Your task to perform on an android device: Search for flights from San Diego to Seattle Image 0: 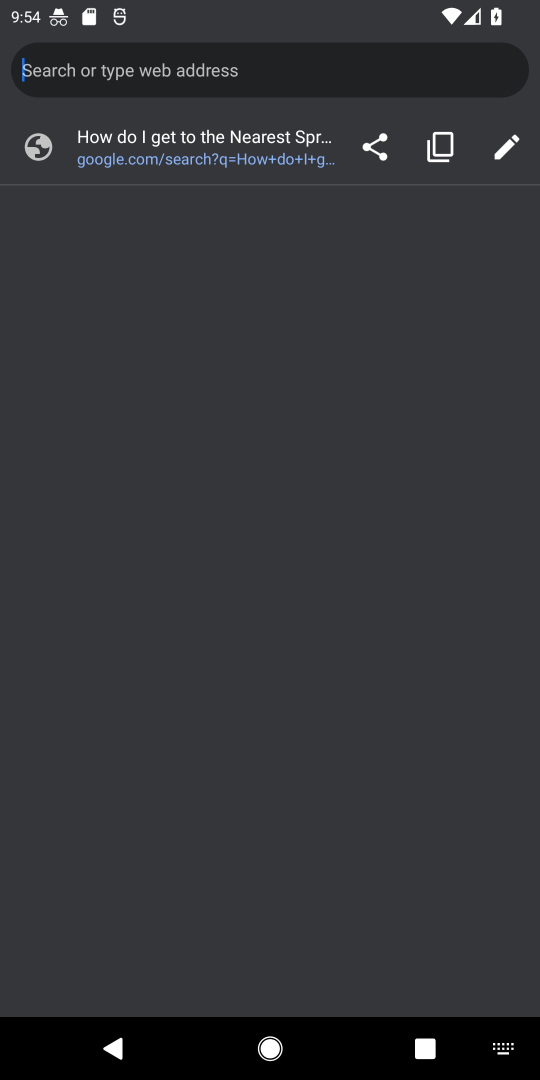
Step 0: click (211, 70)
Your task to perform on an android device: Search for flights from San Diego to Seattle Image 1: 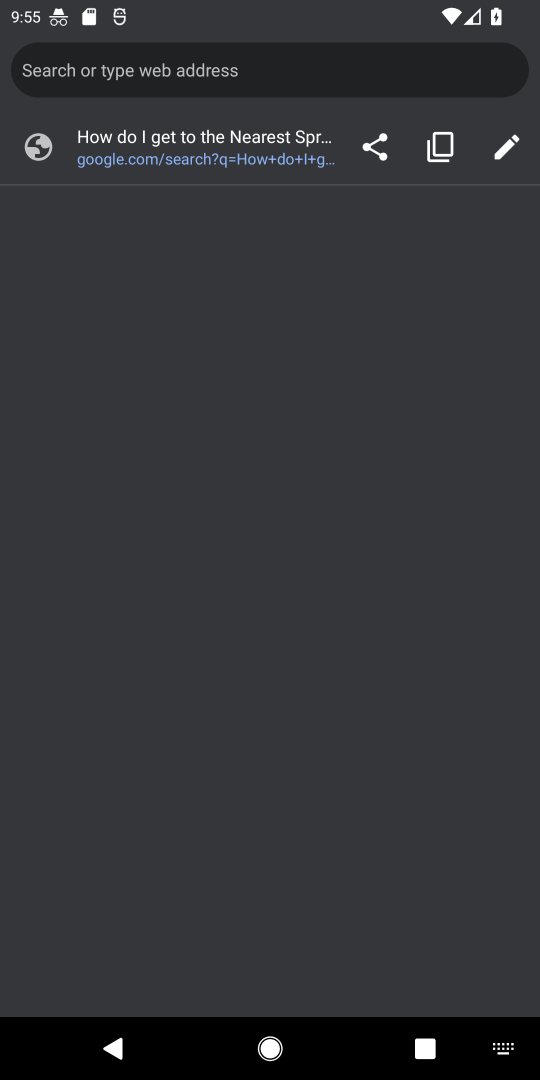
Step 1: type "flights from San Diego to Seattle"
Your task to perform on an android device: Search for flights from San Diego to Seattle Image 2: 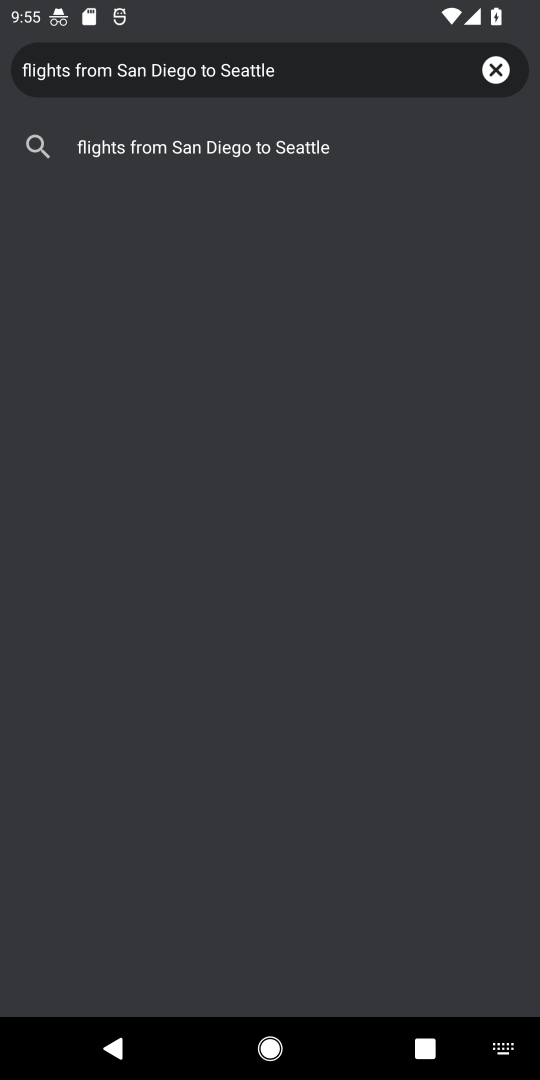
Step 2: press enter
Your task to perform on an android device: Search for flights from San Diego to Seattle Image 3: 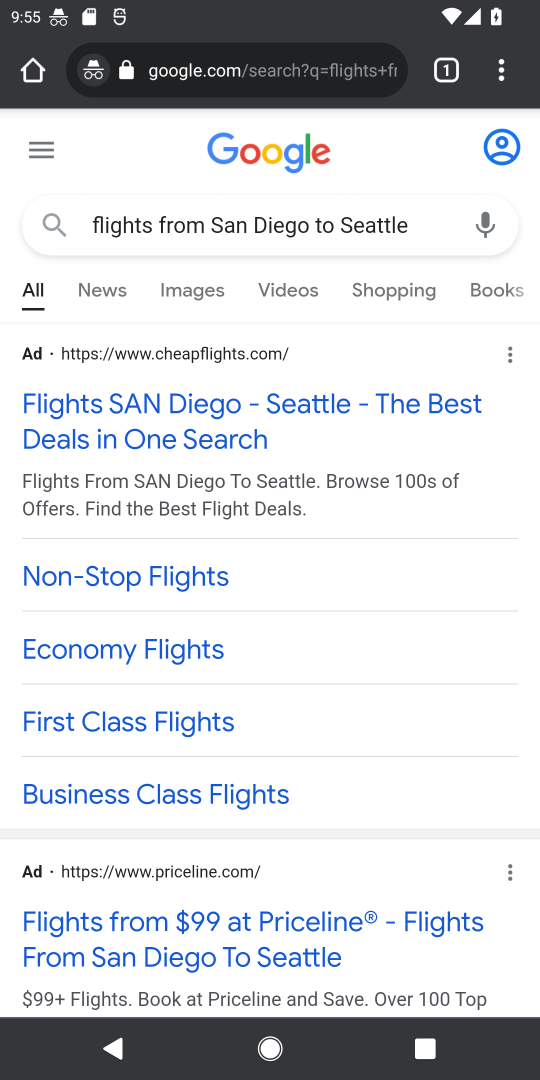
Step 3: task complete